Your task to perform on an android device: What's the weather going to be this weekend? Image 0: 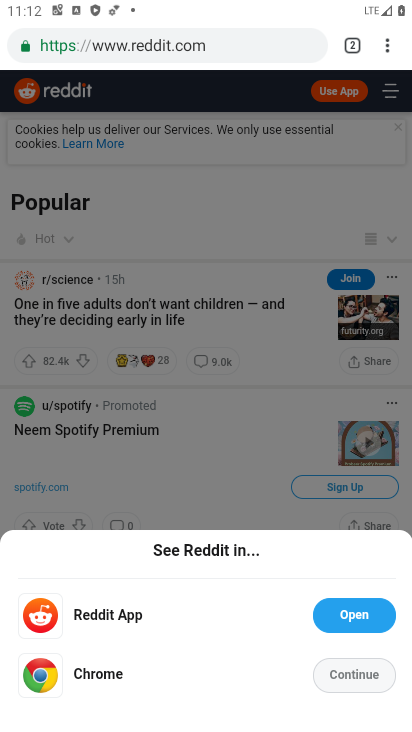
Step 0: press home button
Your task to perform on an android device: What's the weather going to be this weekend? Image 1: 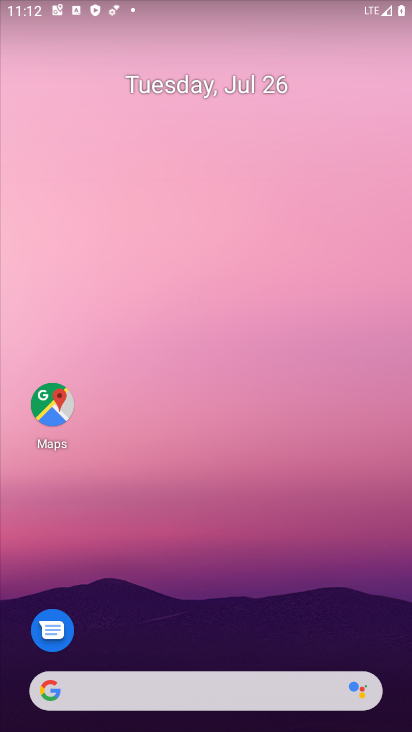
Step 1: drag from (210, 590) to (171, 149)
Your task to perform on an android device: What's the weather going to be this weekend? Image 2: 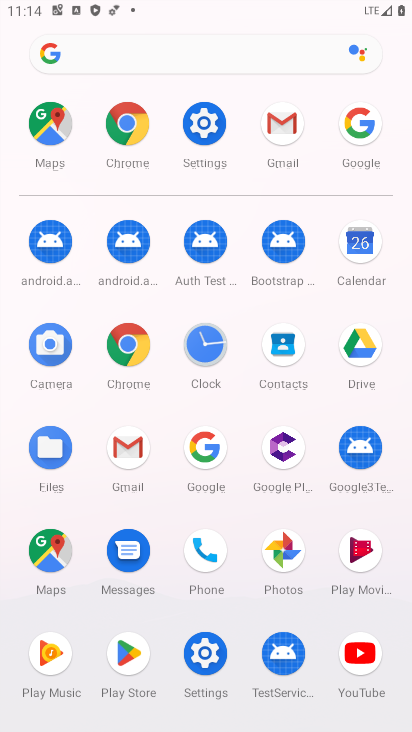
Step 2: click (343, 130)
Your task to perform on an android device: What's the weather going to be this weekend? Image 3: 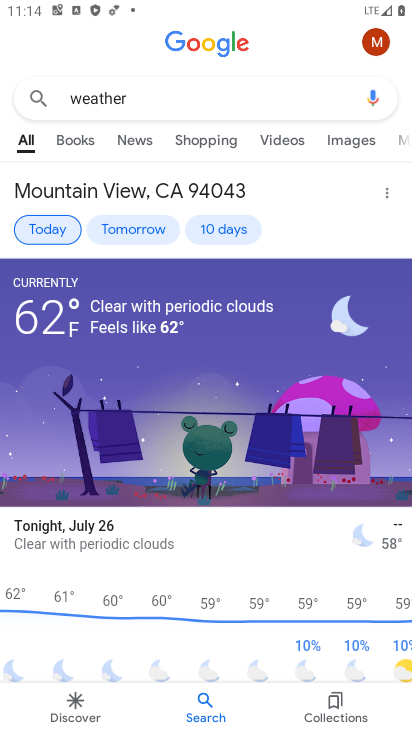
Step 3: task complete